Your task to perform on an android device: delete browsing data in the chrome app Image 0: 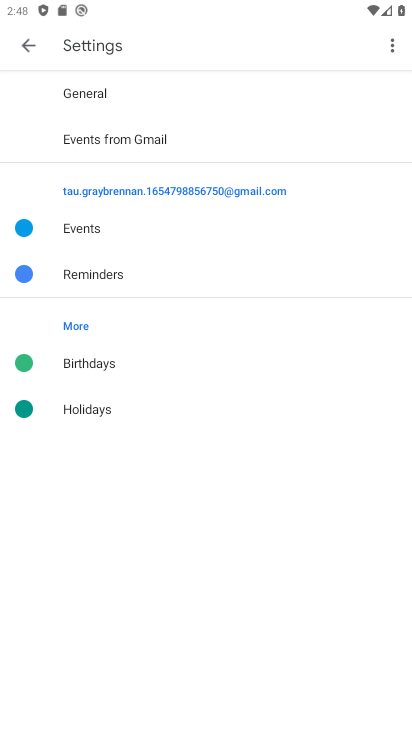
Step 0: drag from (257, 685) to (294, 208)
Your task to perform on an android device: delete browsing data in the chrome app Image 1: 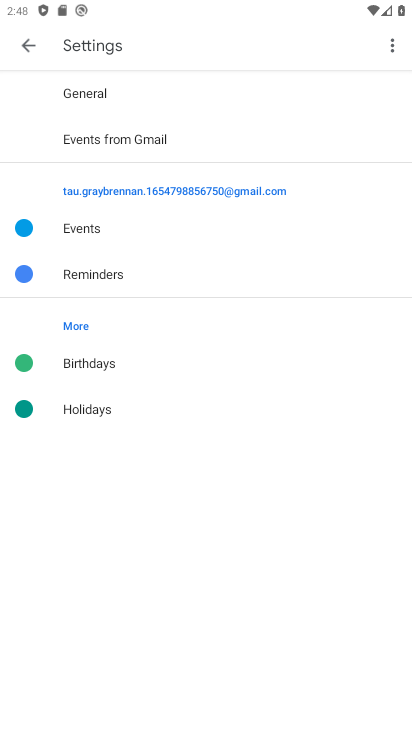
Step 1: press back button
Your task to perform on an android device: delete browsing data in the chrome app Image 2: 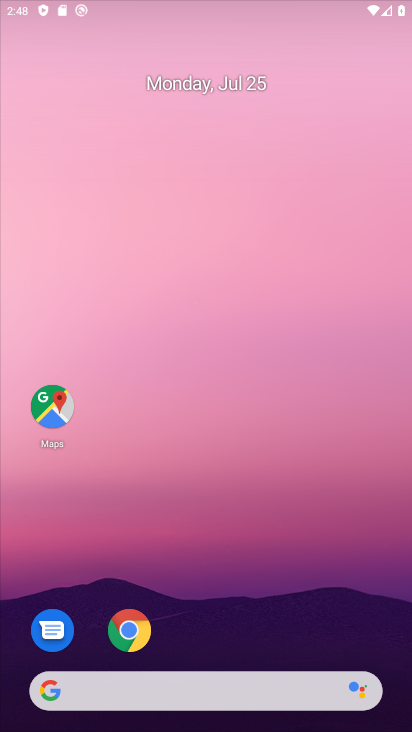
Step 2: drag from (304, 648) to (259, 133)
Your task to perform on an android device: delete browsing data in the chrome app Image 3: 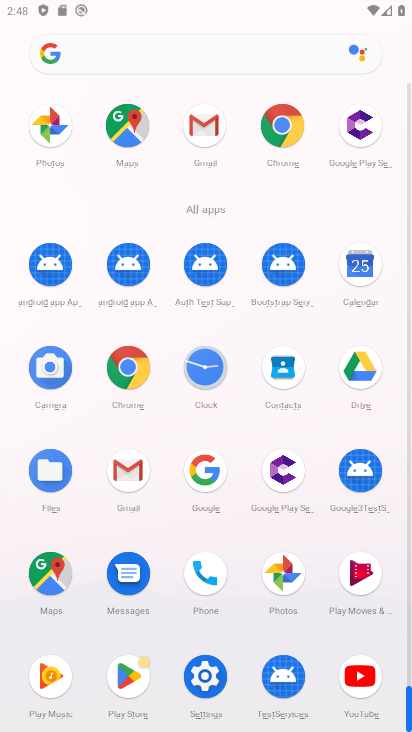
Step 3: drag from (304, 452) to (340, 233)
Your task to perform on an android device: delete browsing data in the chrome app Image 4: 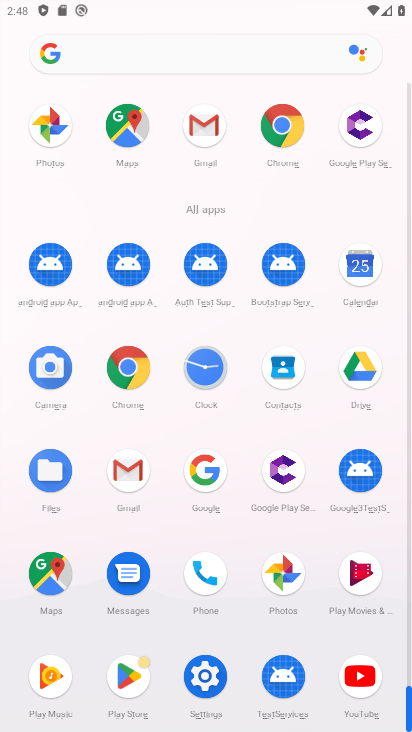
Step 4: click (284, 124)
Your task to perform on an android device: delete browsing data in the chrome app Image 5: 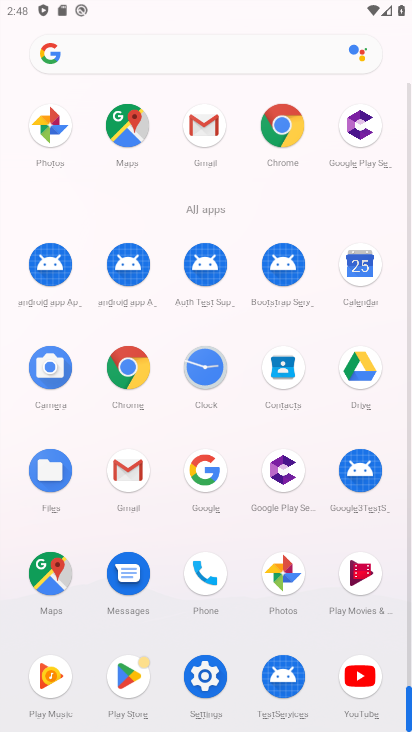
Step 5: click (285, 125)
Your task to perform on an android device: delete browsing data in the chrome app Image 6: 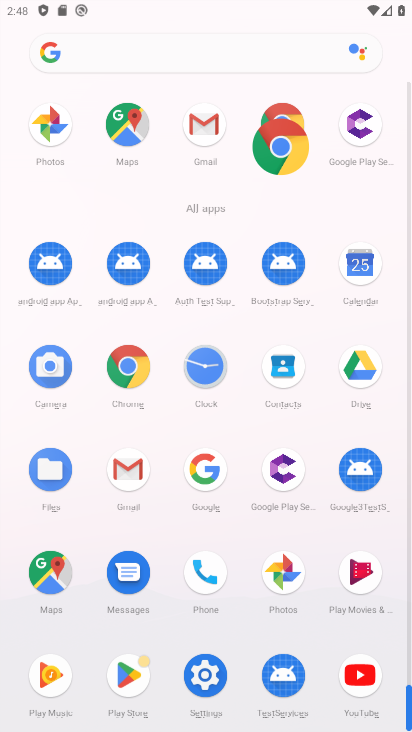
Step 6: click (282, 135)
Your task to perform on an android device: delete browsing data in the chrome app Image 7: 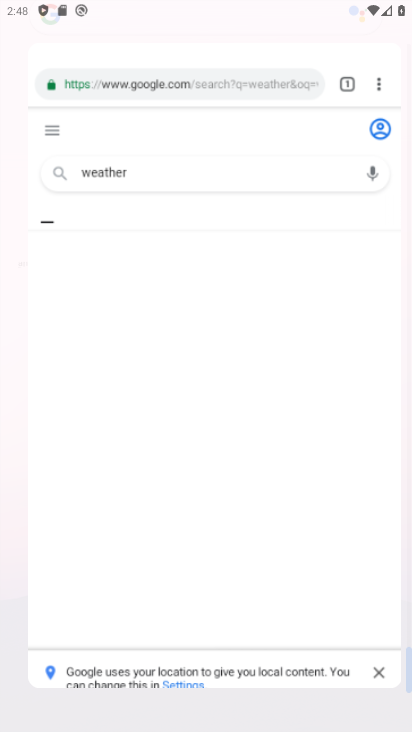
Step 7: click (280, 134)
Your task to perform on an android device: delete browsing data in the chrome app Image 8: 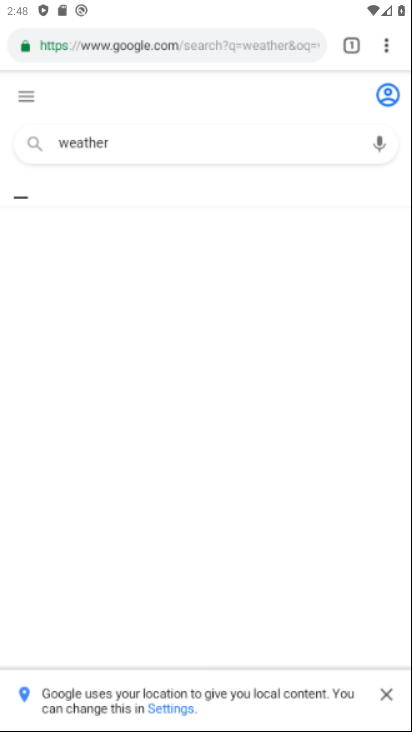
Step 8: click (279, 134)
Your task to perform on an android device: delete browsing data in the chrome app Image 9: 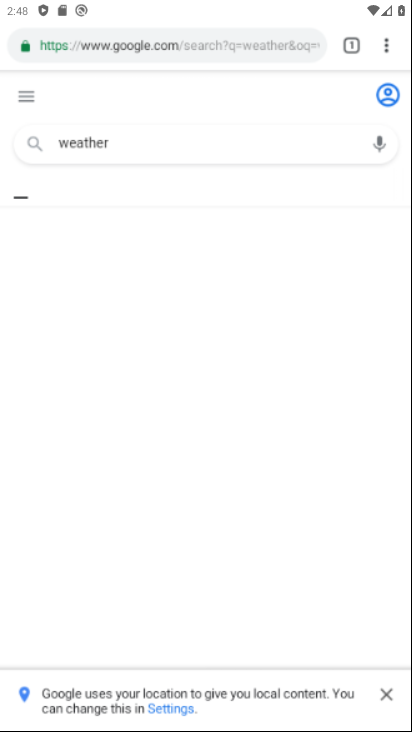
Step 9: click (276, 132)
Your task to perform on an android device: delete browsing data in the chrome app Image 10: 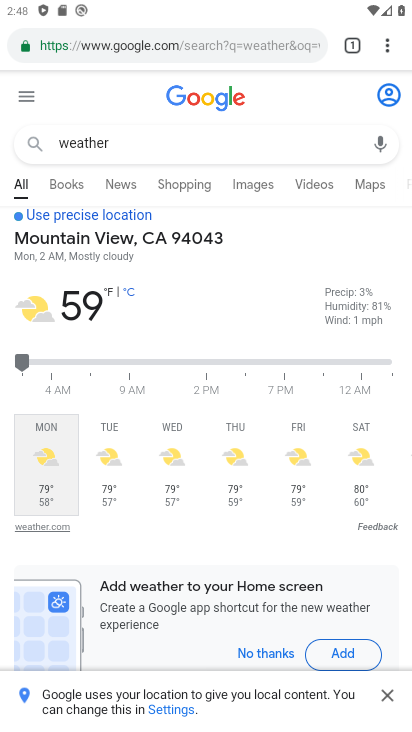
Step 10: press back button
Your task to perform on an android device: delete browsing data in the chrome app Image 11: 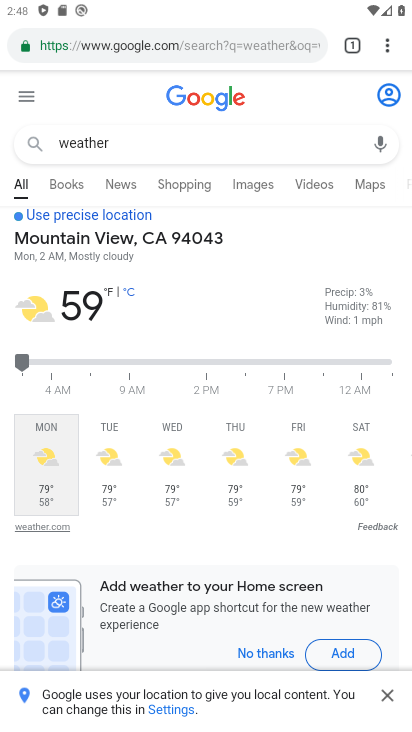
Step 11: drag from (387, 45) to (262, 350)
Your task to perform on an android device: delete browsing data in the chrome app Image 12: 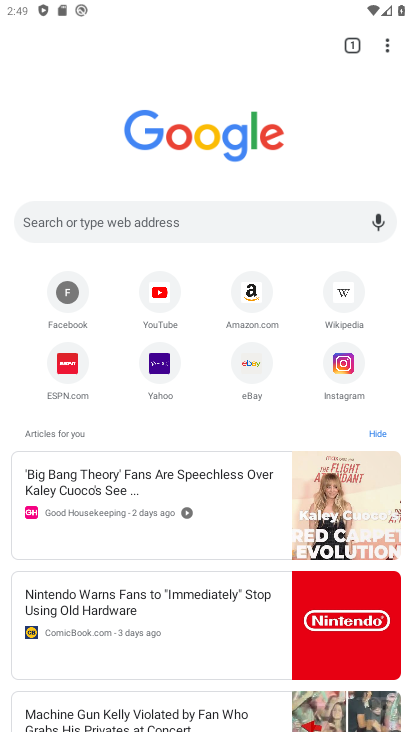
Step 12: drag from (383, 47) to (216, 265)
Your task to perform on an android device: delete browsing data in the chrome app Image 13: 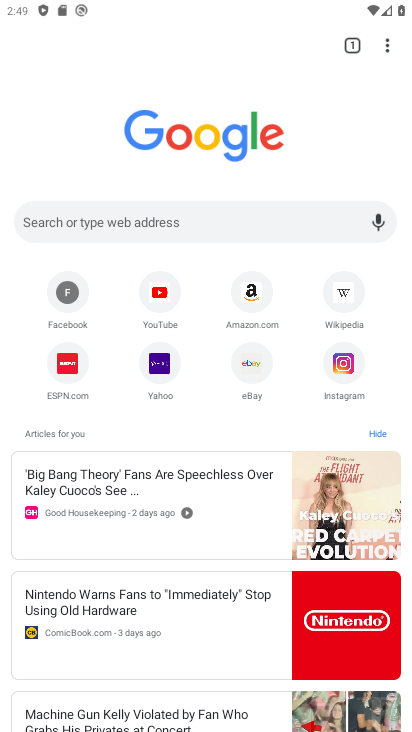
Step 13: click (216, 268)
Your task to perform on an android device: delete browsing data in the chrome app Image 14: 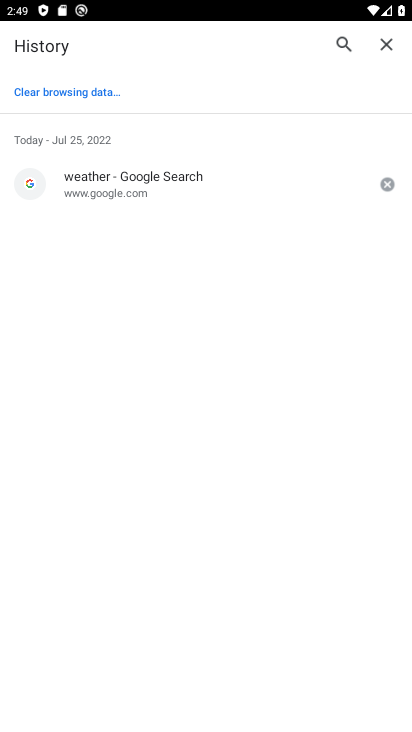
Step 14: click (385, 186)
Your task to perform on an android device: delete browsing data in the chrome app Image 15: 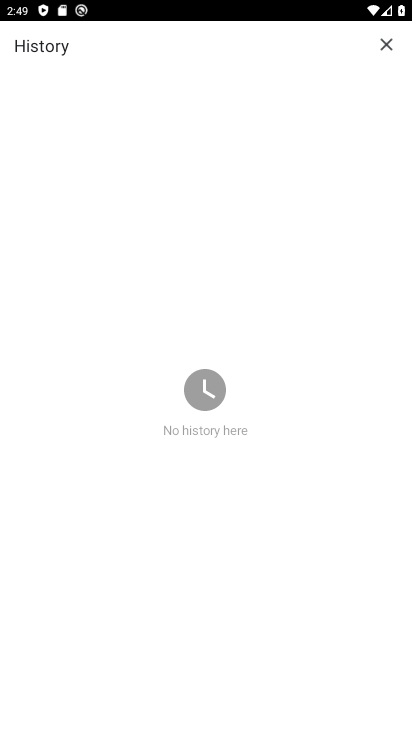
Step 15: click (394, 174)
Your task to perform on an android device: delete browsing data in the chrome app Image 16: 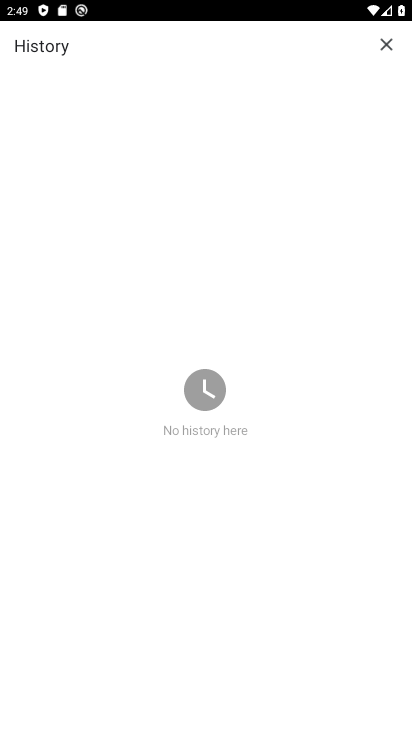
Step 16: click (396, 174)
Your task to perform on an android device: delete browsing data in the chrome app Image 17: 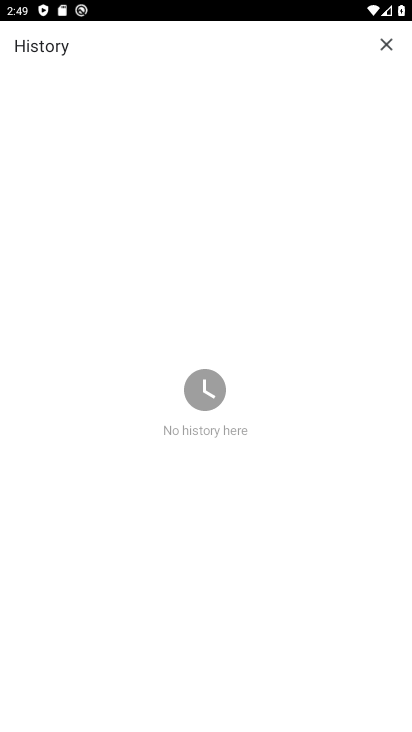
Step 17: task complete